Your task to perform on an android device: Open Chrome and go to settings Image 0: 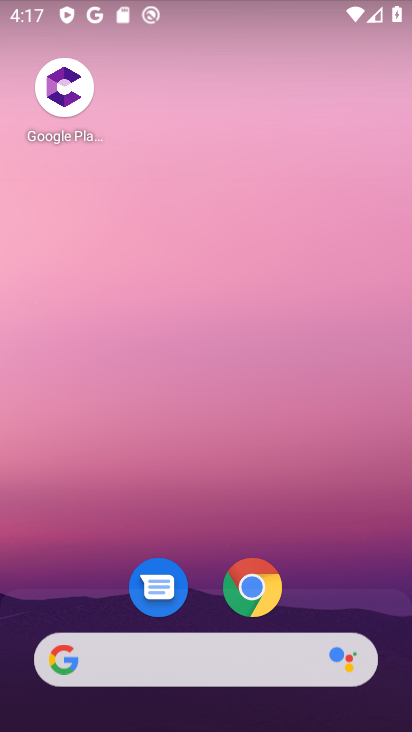
Step 0: click (250, 583)
Your task to perform on an android device: Open Chrome and go to settings Image 1: 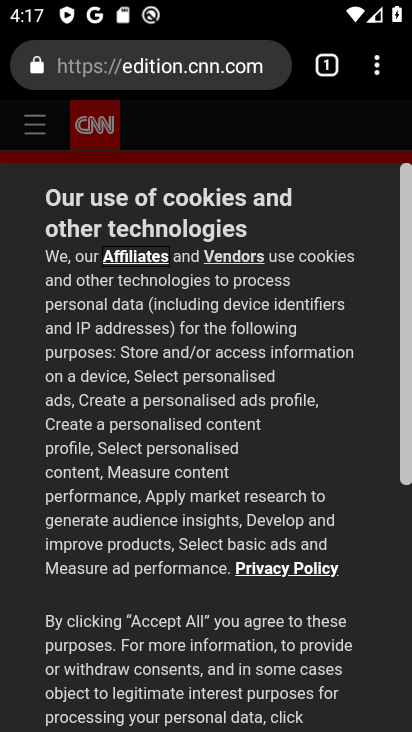
Step 1: click (378, 63)
Your task to perform on an android device: Open Chrome and go to settings Image 2: 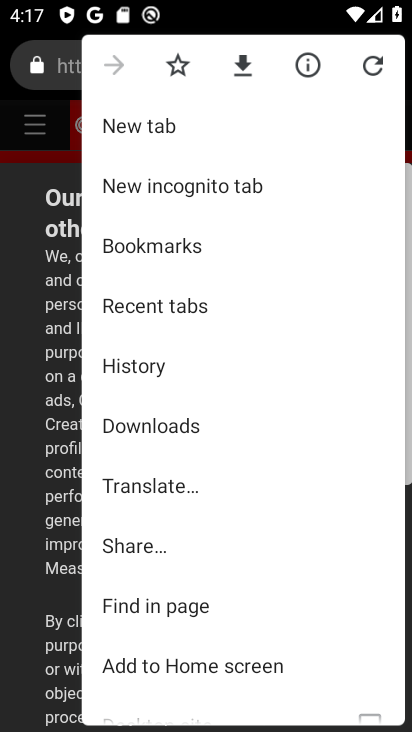
Step 2: drag from (168, 680) to (169, 294)
Your task to perform on an android device: Open Chrome and go to settings Image 3: 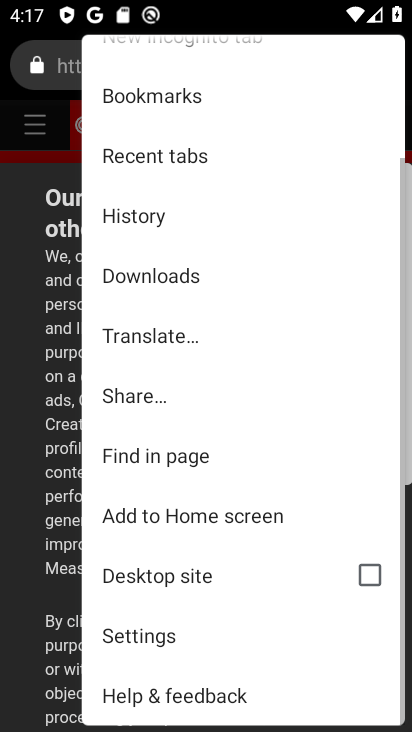
Step 3: click (157, 636)
Your task to perform on an android device: Open Chrome and go to settings Image 4: 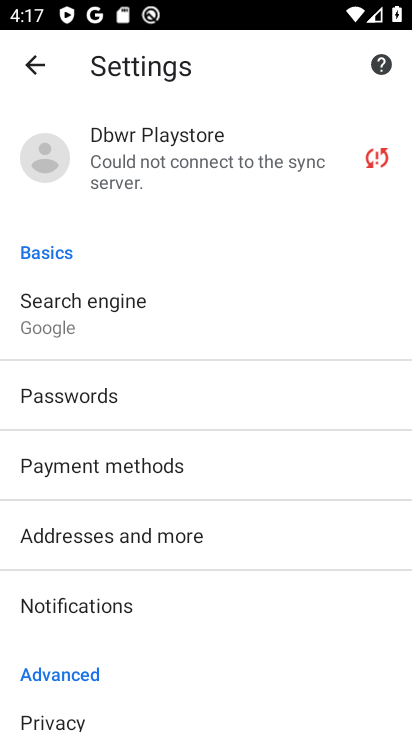
Step 4: task complete